Your task to perform on an android device: Check the weather Image 0: 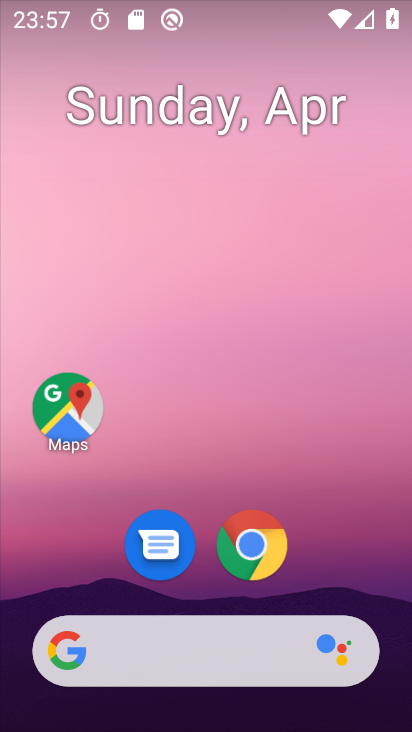
Step 0: drag from (333, 469) to (343, 196)
Your task to perform on an android device: Check the weather Image 1: 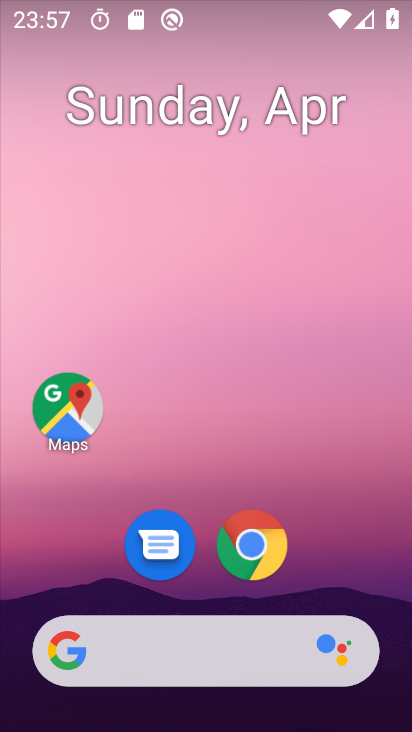
Step 1: drag from (349, 519) to (336, 211)
Your task to perform on an android device: Check the weather Image 2: 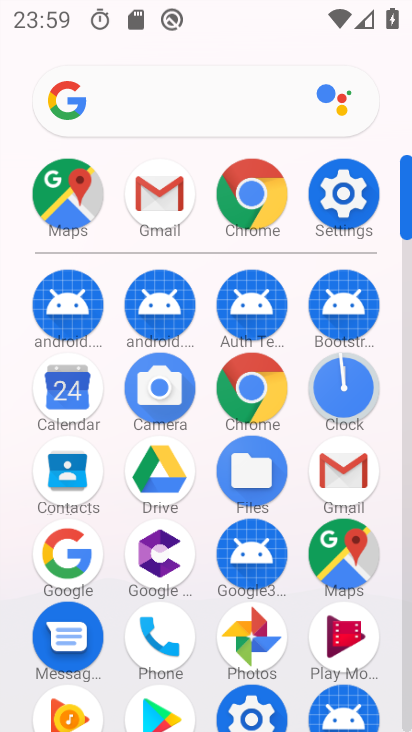
Step 2: click (230, 191)
Your task to perform on an android device: Check the weather Image 3: 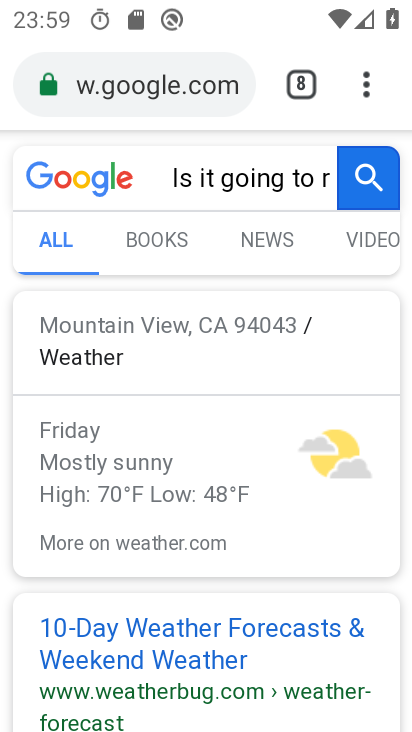
Step 3: click (349, 86)
Your task to perform on an android device: Check the weather Image 4: 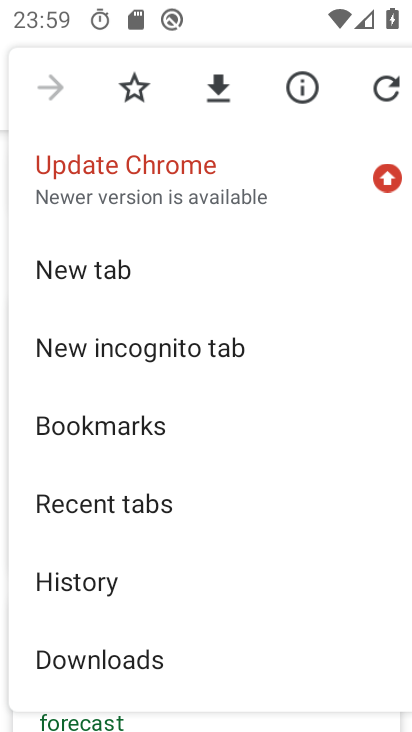
Step 4: click (145, 264)
Your task to perform on an android device: Check the weather Image 5: 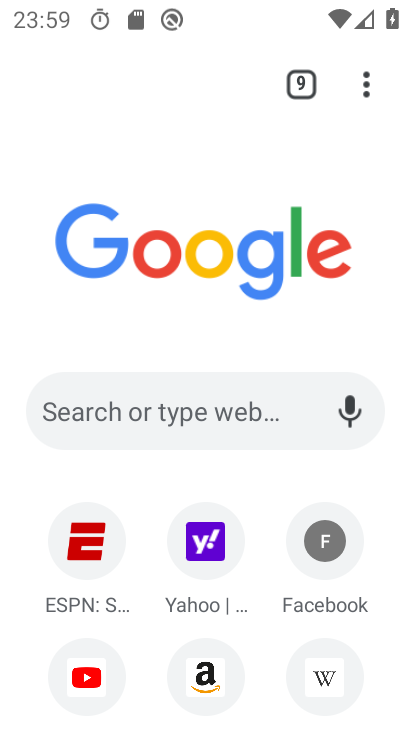
Step 5: click (211, 404)
Your task to perform on an android device: Check the weather Image 6: 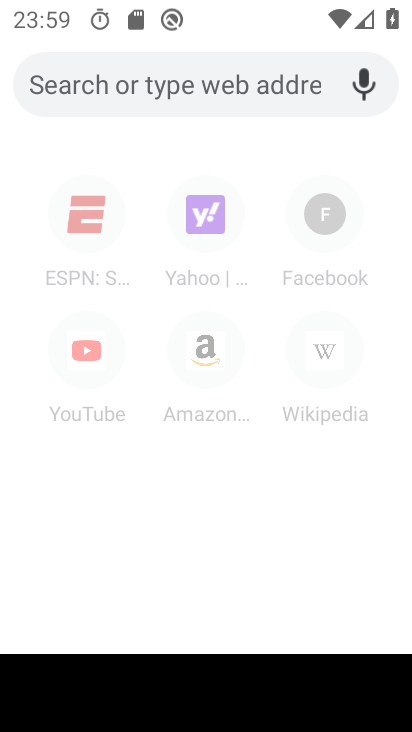
Step 6: type " weather"
Your task to perform on an android device: Check the weather Image 7: 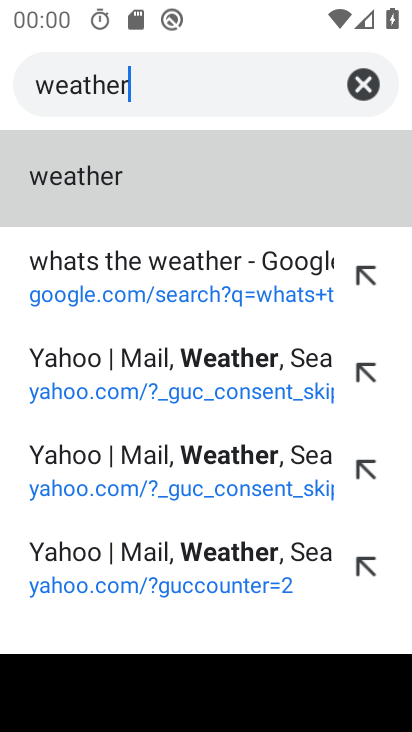
Step 7: click (165, 272)
Your task to perform on an android device: Check the weather Image 8: 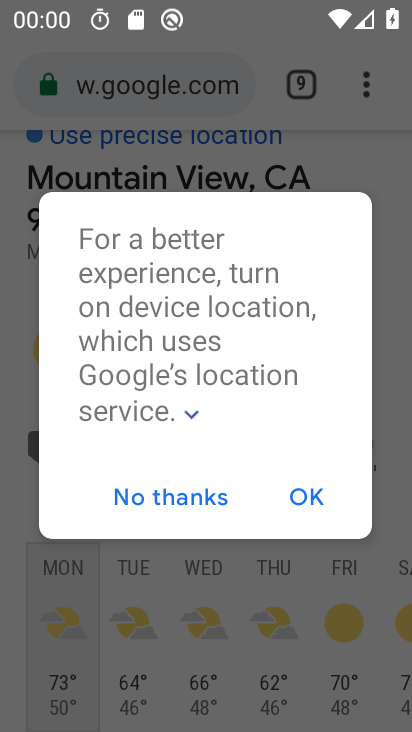
Step 8: task complete